Your task to perform on an android device: Open battery settings Image 0: 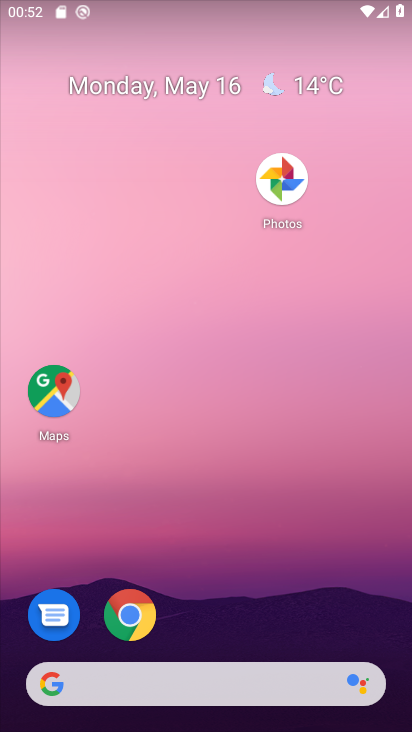
Step 0: drag from (317, 263) to (340, 112)
Your task to perform on an android device: Open battery settings Image 1: 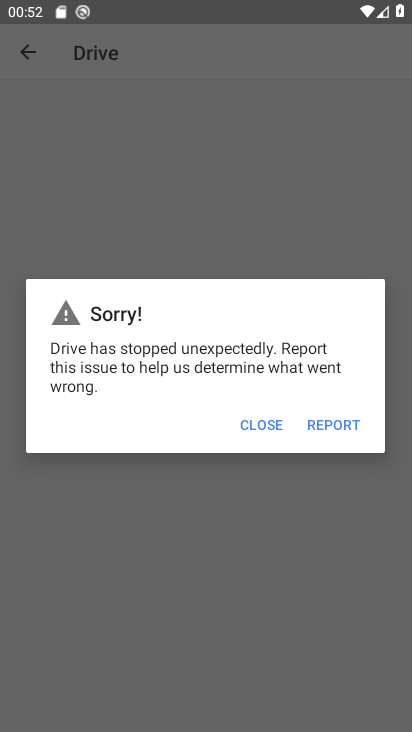
Step 1: press home button
Your task to perform on an android device: Open battery settings Image 2: 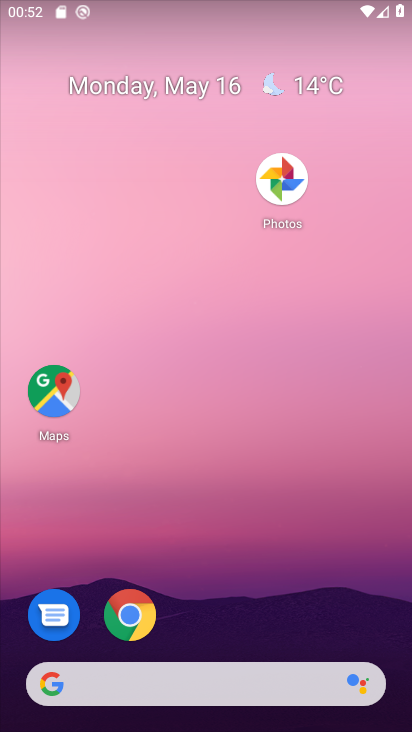
Step 2: drag from (364, 562) to (379, 66)
Your task to perform on an android device: Open battery settings Image 3: 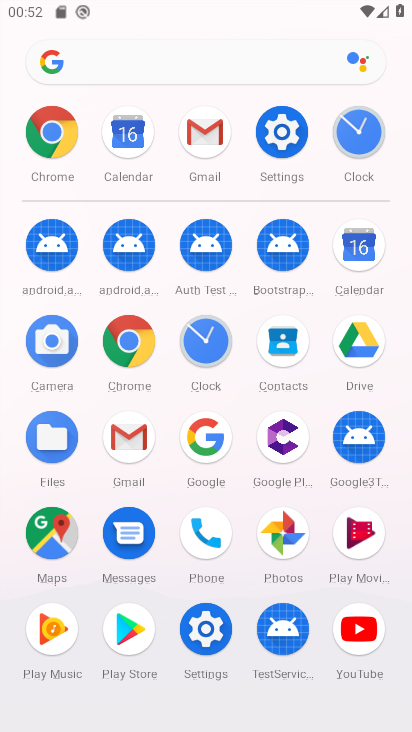
Step 3: click (203, 635)
Your task to perform on an android device: Open battery settings Image 4: 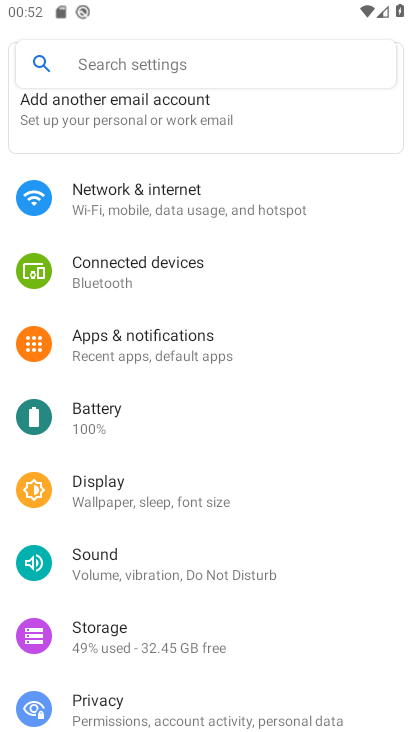
Step 4: click (106, 417)
Your task to perform on an android device: Open battery settings Image 5: 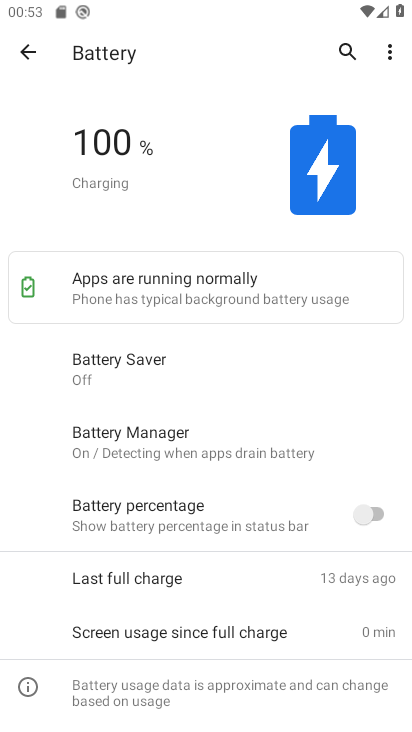
Step 5: task complete